Your task to perform on an android device: Open the calendar app, open the side menu, and click the "Day" option Image 0: 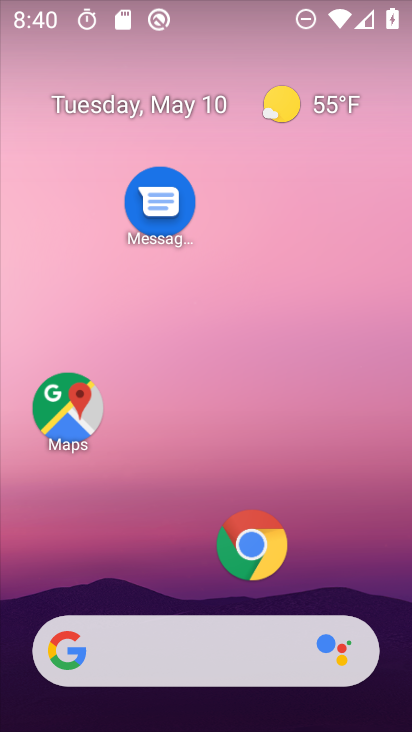
Step 0: drag from (149, 594) to (133, 228)
Your task to perform on an android device: Open the calendar app, open the side menu, and click the "Day" option Image 1: 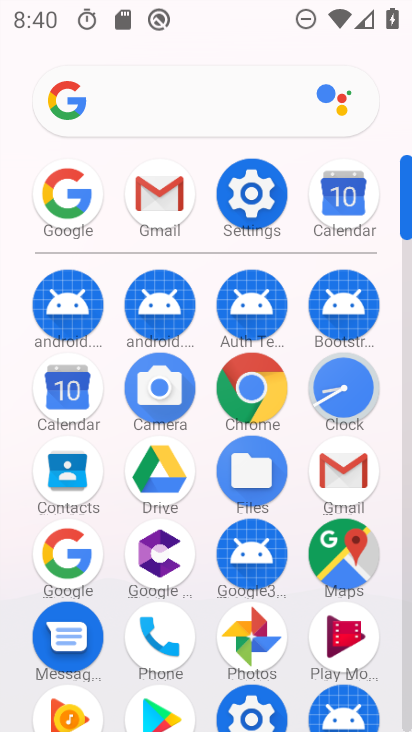
Step 1: click (326, 210)
Your task to perform on an android device: Open the calendar app, open the side menu, and click the "Day" option Image 2: 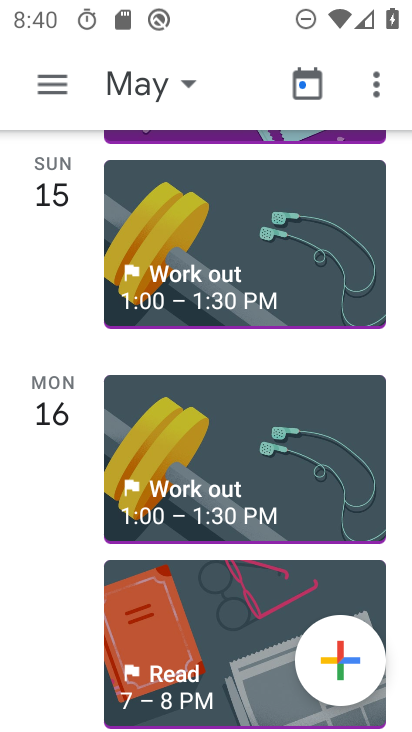
Step 2: click (61, 83)
Your task to perform on an android device: Open the calendar app, open the side menu, and click the "Day" option Image 3: 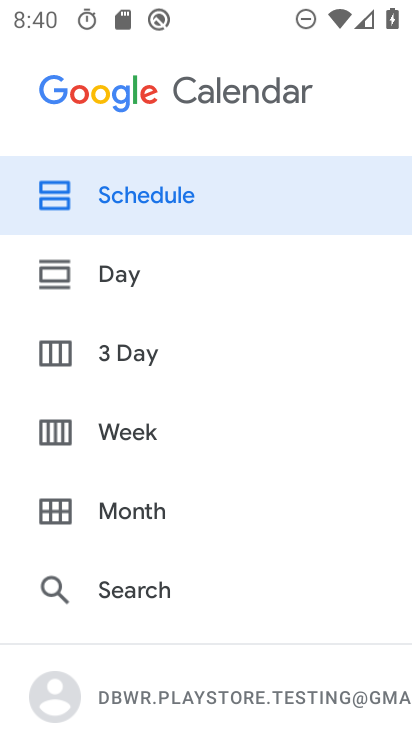
Step 3: click (126, 268)
Your task to perform on an android device: Open the calendar app, open the side menu, and click the "Day" option Image 4: 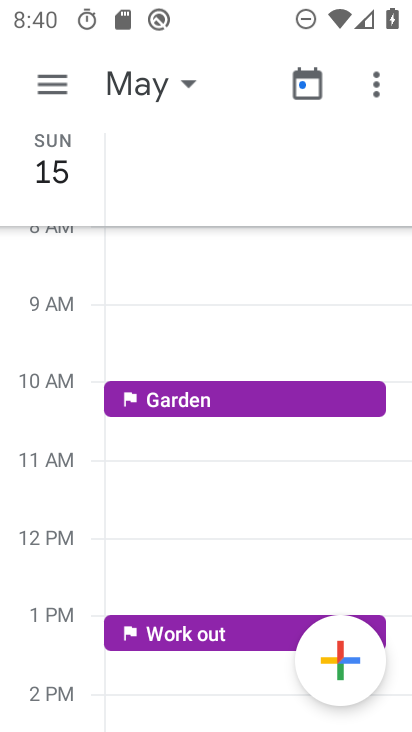
Step 4: task complete